Your task to perform on an android device: Who is the prime minister of Canada? Image 0: 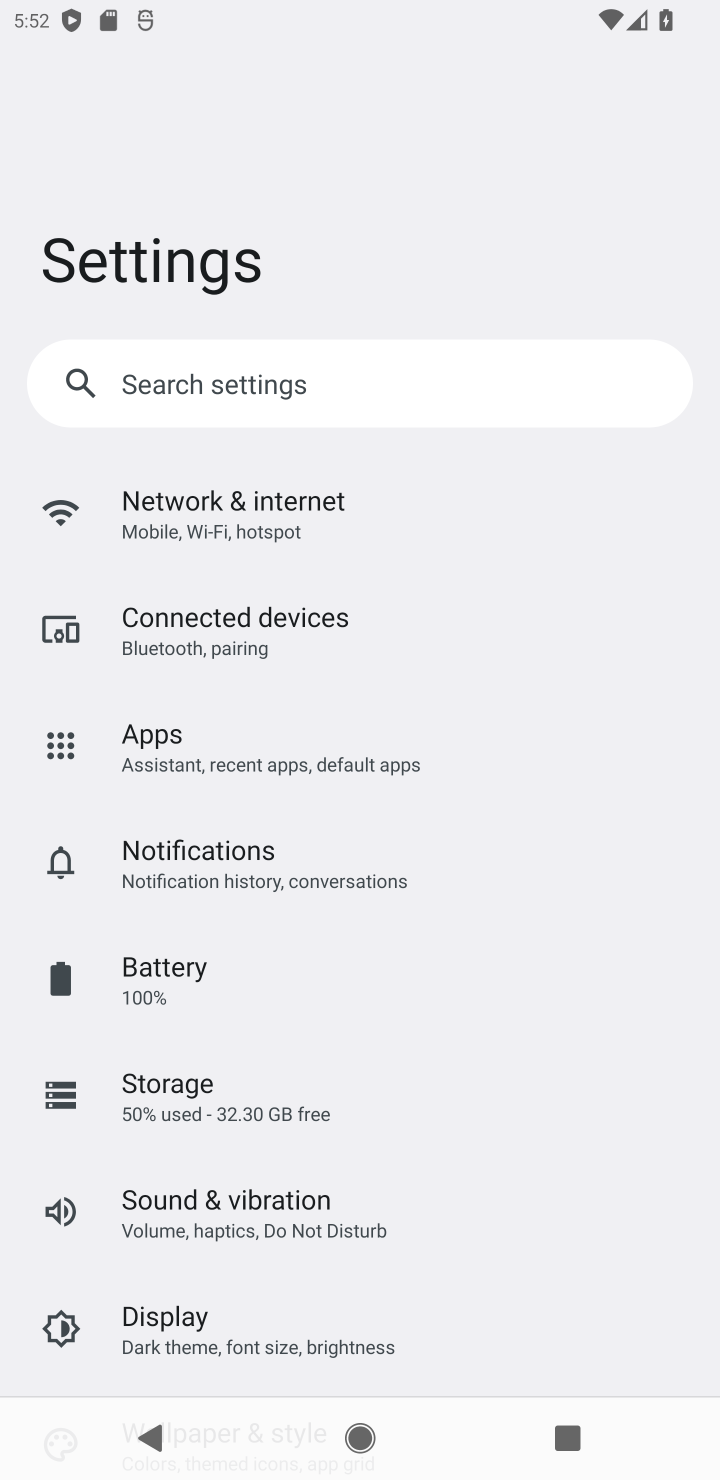
Step 0: press home button
Your task to perform on an android device: Who is the prime minister of Canada? Image 1: 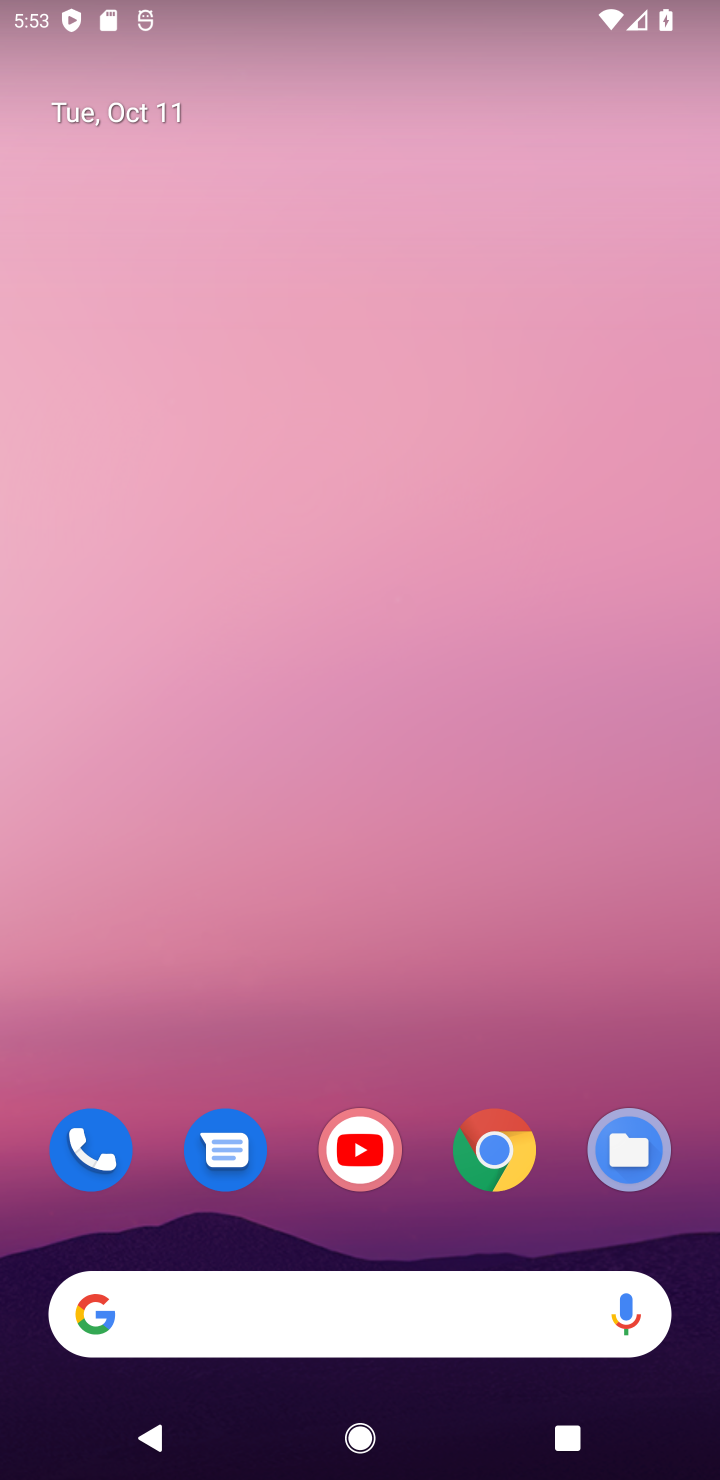
Step 1: click (499, 1157)
Your task to perform on an android device: Who is the prime minister of Canada? Image 2: 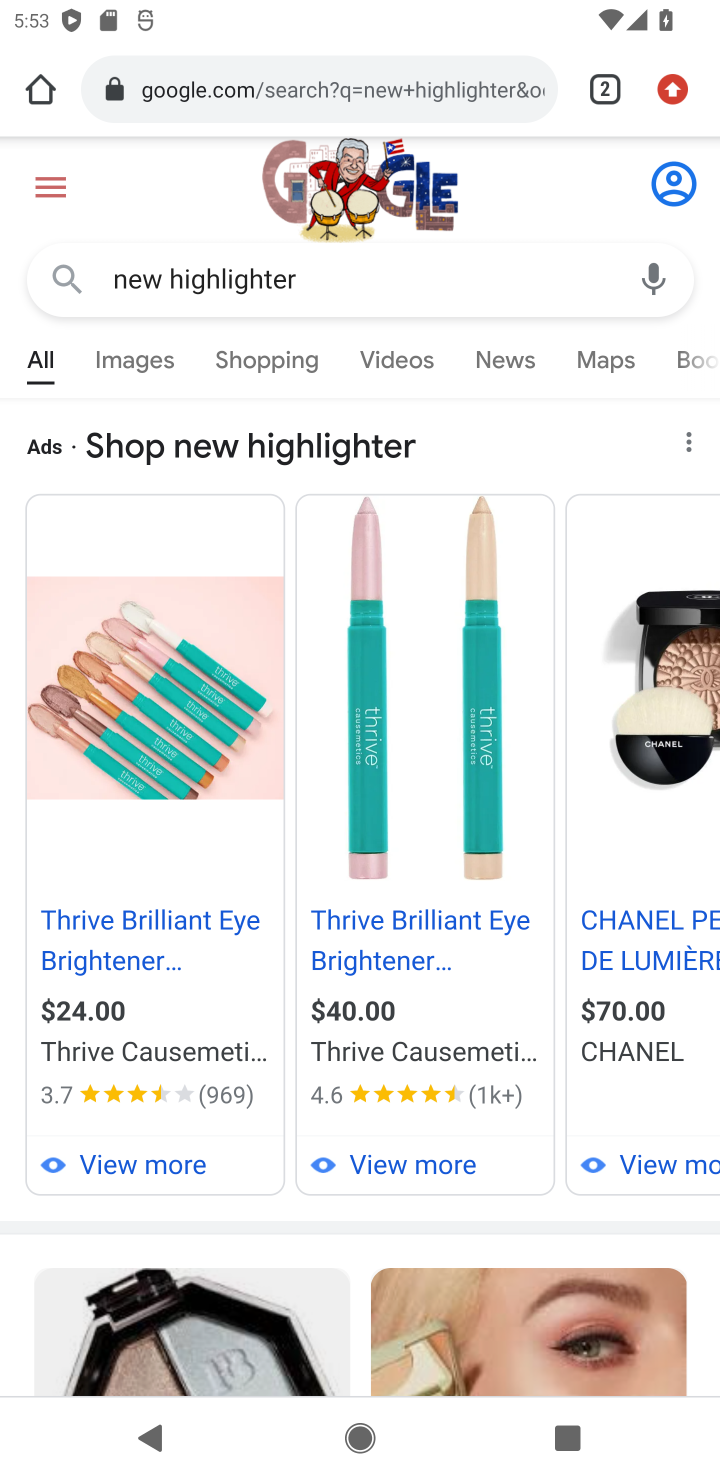
Step 2: click (294, 87)
Your task to perform on an android device: Who is the prime minister of Canada? Image 3: 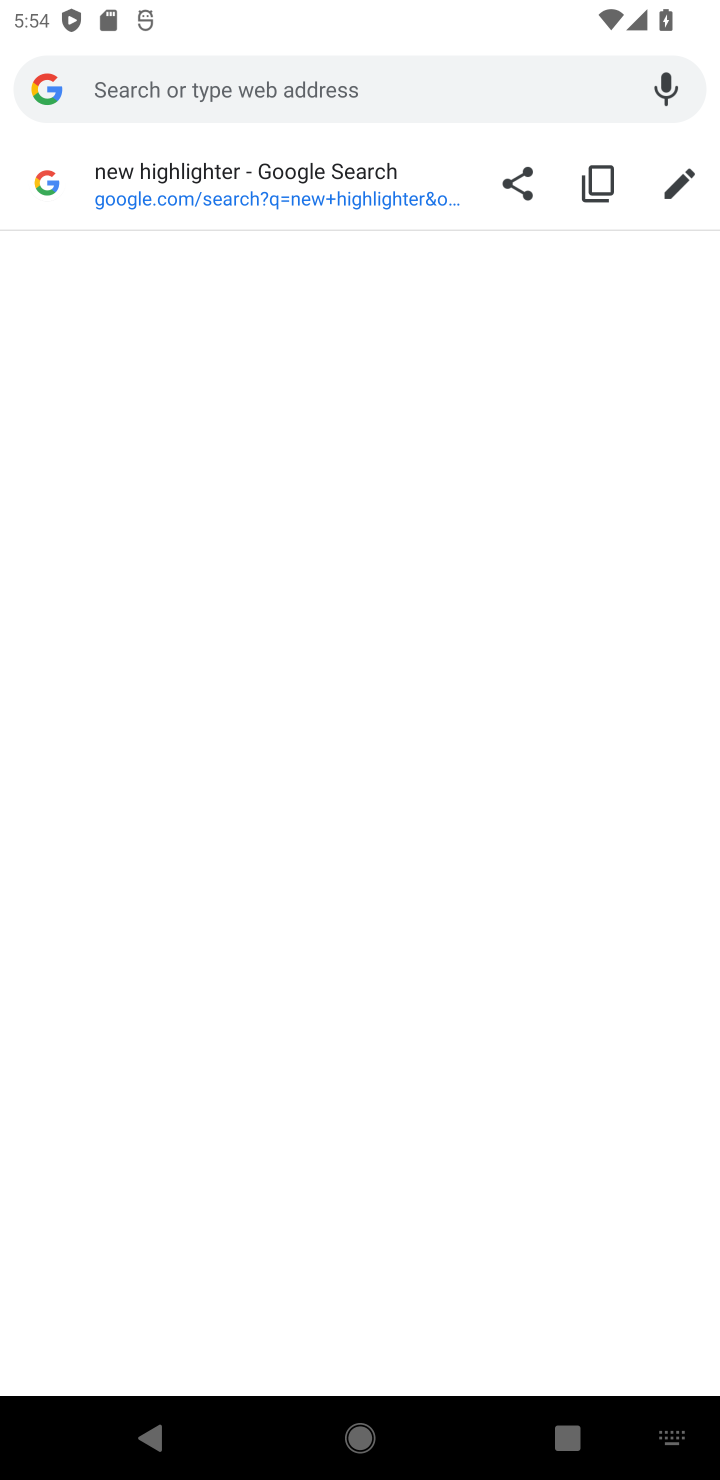
Step 3: type "prime minister of Canada"
Your task to perform on an android device: Who is the prime minister of Canada? Image 4: 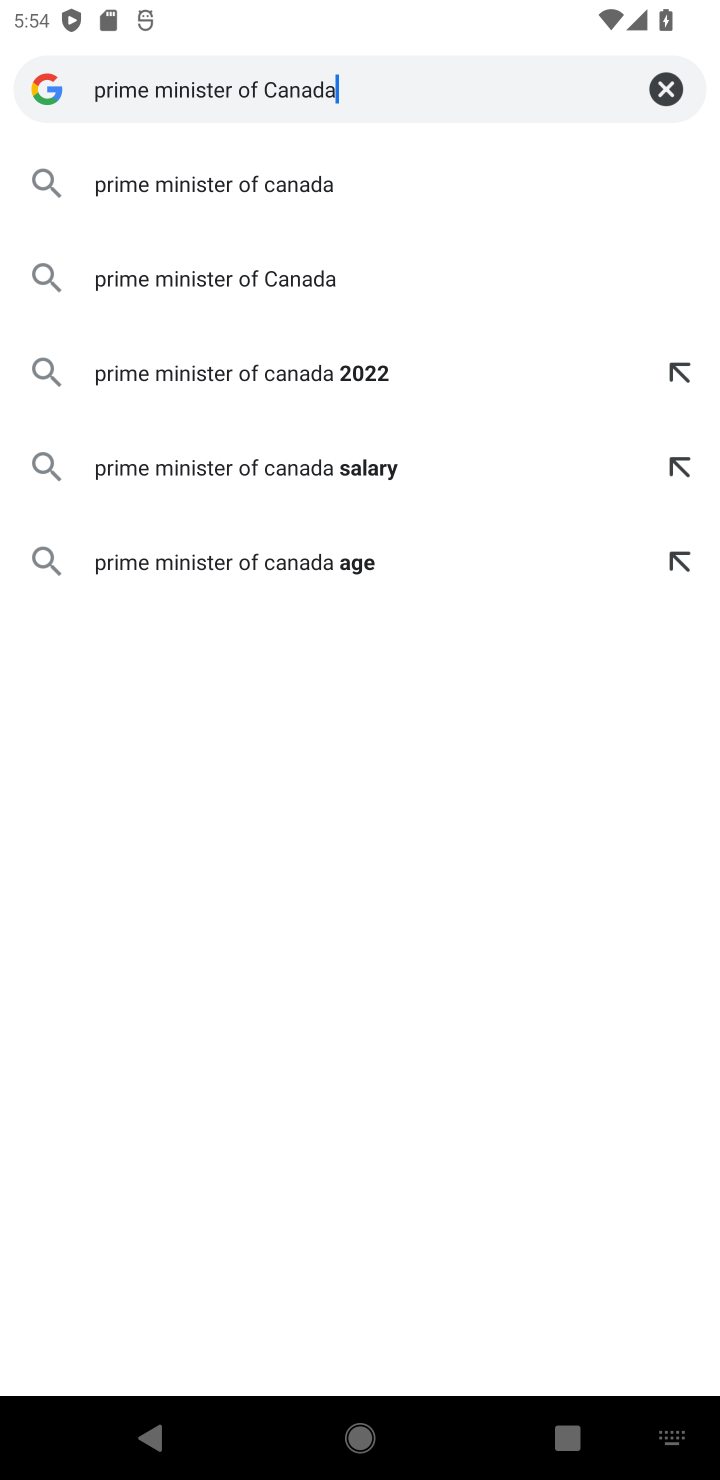
Step 4: click (275, 182)
Your task to perform on an android device: Who is the prime minister of Canada? Image 5: 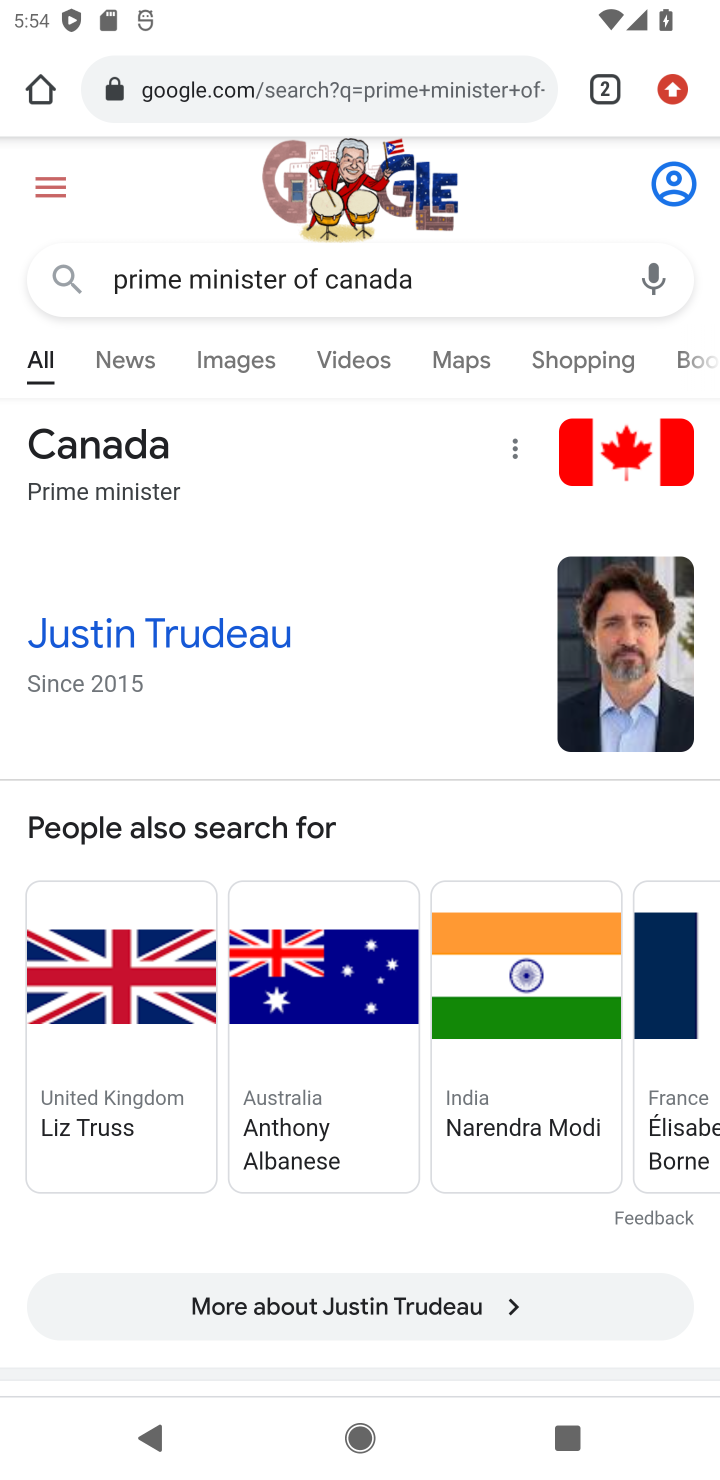
Step 5: task complete